Your task to perform on an android device: Show me popular games on the Play Store Image 0: 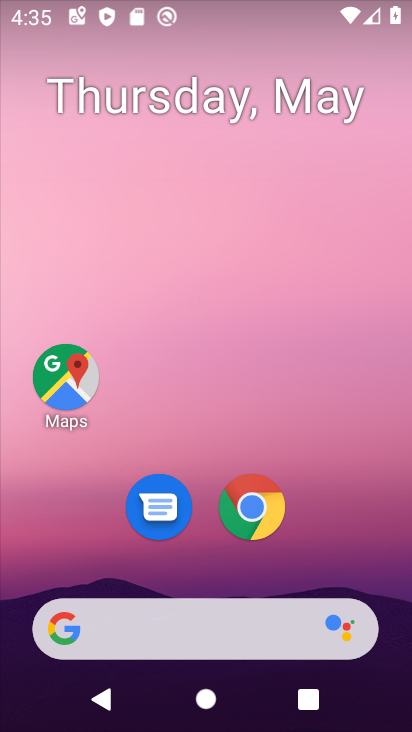
Step 0: drag from (300, 592) to (318, 206)
Your task to perform on an android device: Show me popular games on the Play Store Image 1: 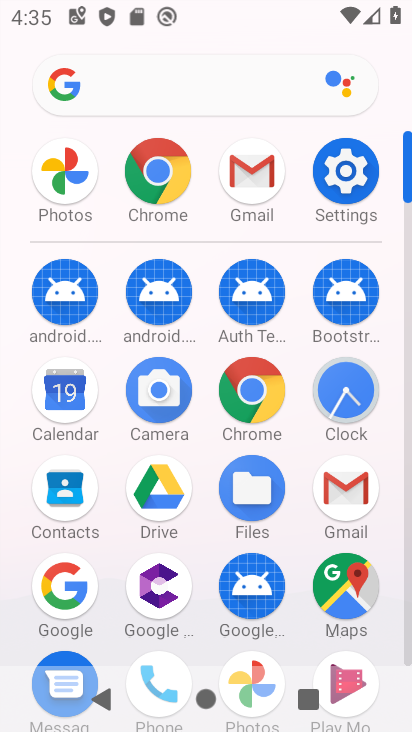
Step 1: drag from (292, 537) to (266, 221)
Your task to perform on an android device: Show me popular games on the Play Store Image 2: 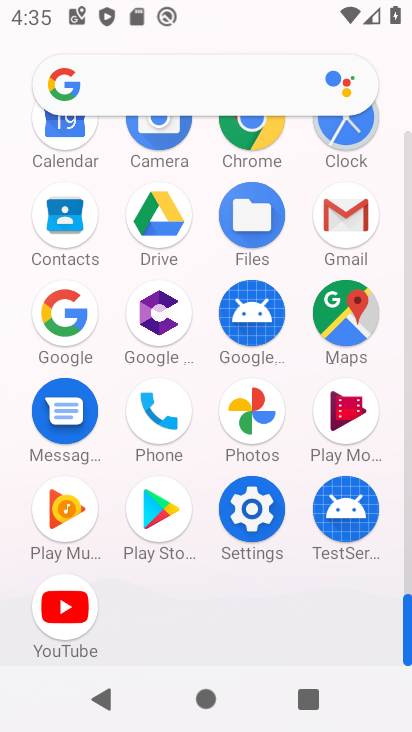
Step 2: click (157, 511)
Your task to perform on an android device: Show me popular games on the Play Store Image 3: 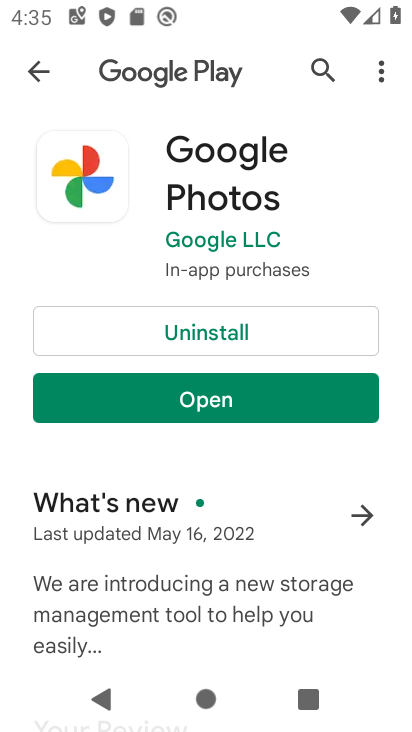
Step 3: click (36, 72)
Your task to perform on an android device: Show me popular games on the Play Store Image 4: 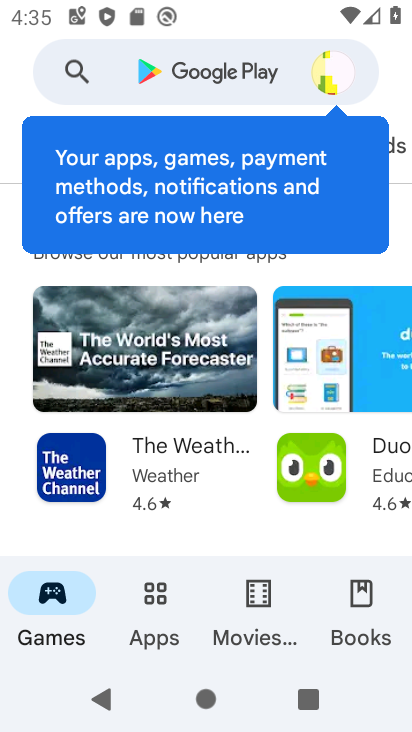
Step 4: click (45, 604)
Your task to perform on an android device: Show me popular games on the Play Store Image 5: 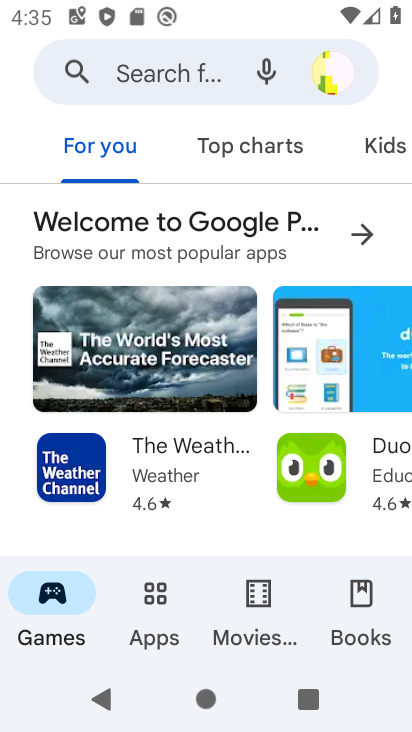
Step 5: click (228, 155)
Your task to perform on an android device: Show me popular games on the Play Store Image 6: 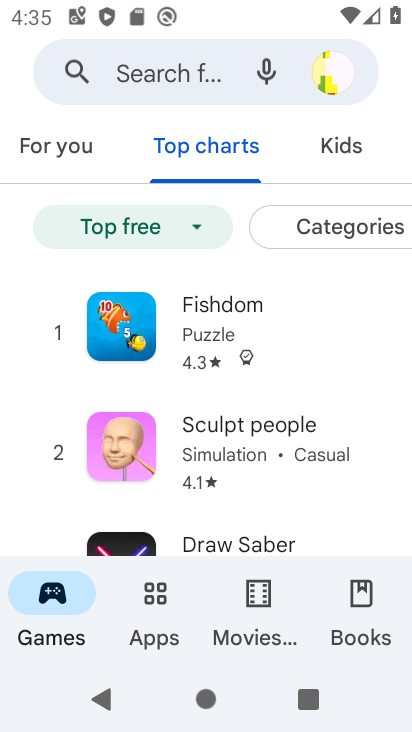
Step 6: task complete